Your task to perform on an android device: turn off location Image 0: 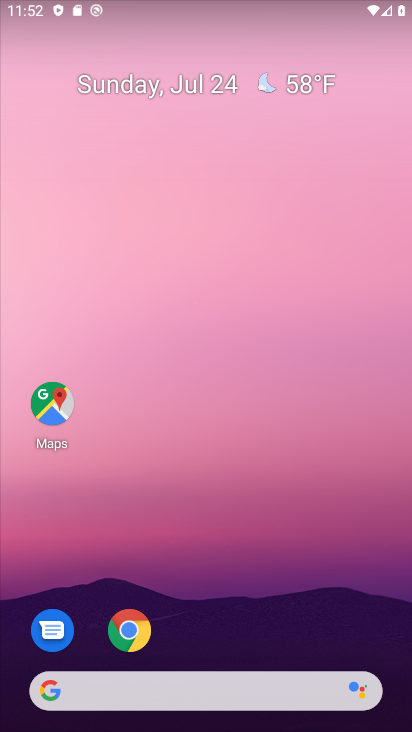
Step 0: drag from (299, 625) to (262, 78)
Your task to perform on an android device: turn off location Image 1: 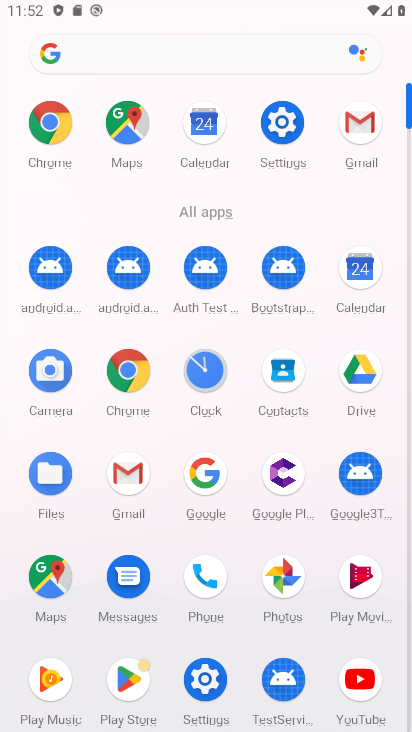
Step 1: click (283, 116)
Your task to perform on an android device: turn off location Image 2: 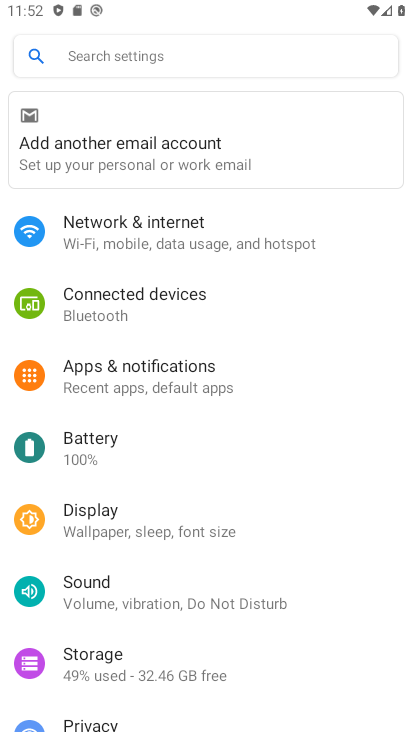
Step 2: drag from (293, 699) to (206, 203)
Your task to perform on an android device: turn off location Image 3: 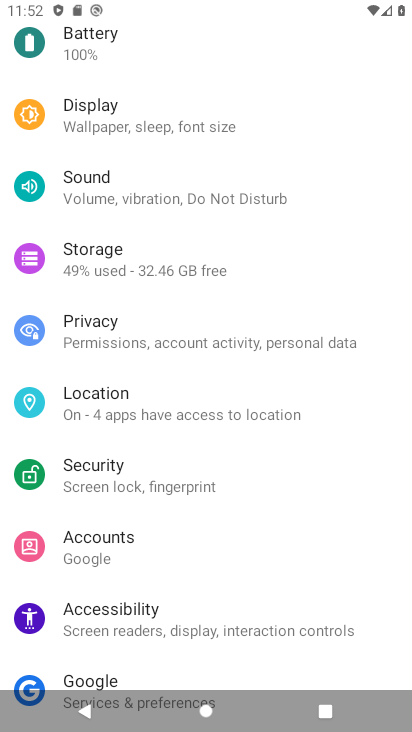
Step 3: click (229, 394)
Your task to perform on an android device: turn off location Image 4: 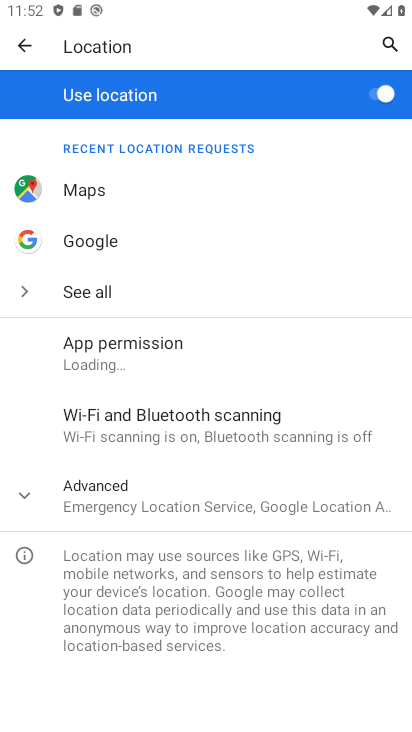
Step 4: click (386, 75)
Your task to perform on an android device: turn off location Image 5: 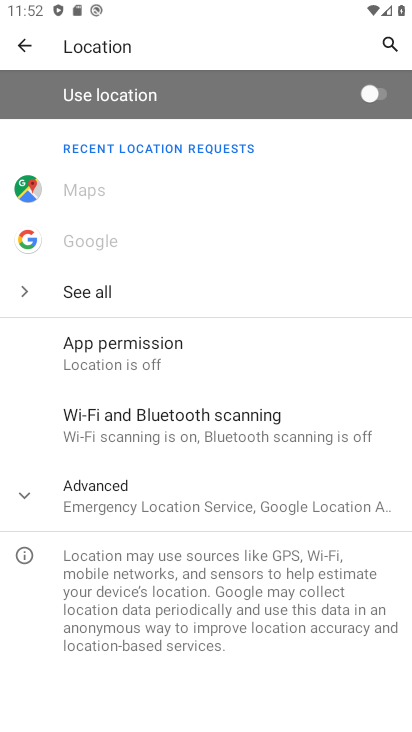
Step 5: task complete